Your task to perform on an android device: snooze an email in the gmail app Image 0: 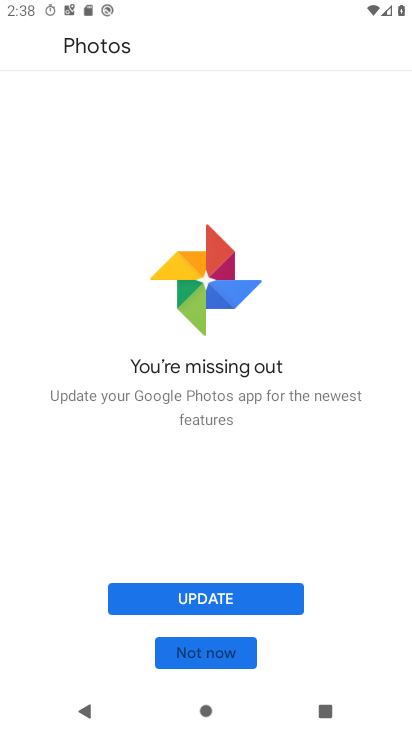
Step 0: press home button
Your task to perform on an android device: snooze an email in the gmail app Image 1: 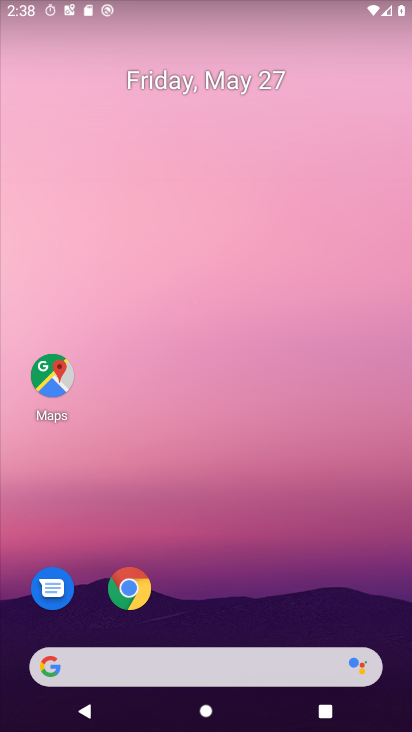
Step 1: drag from (266, 613) to (247, 1)
Your task to perform on an android device: snooze an email in the gmail app Image 2: 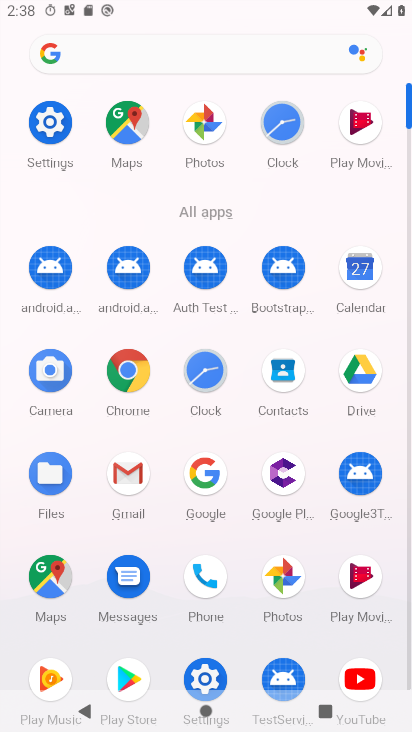
Step 2: click (116, 472)
Your task to perform on an android device: snooze an email in the gmail app Image 3: 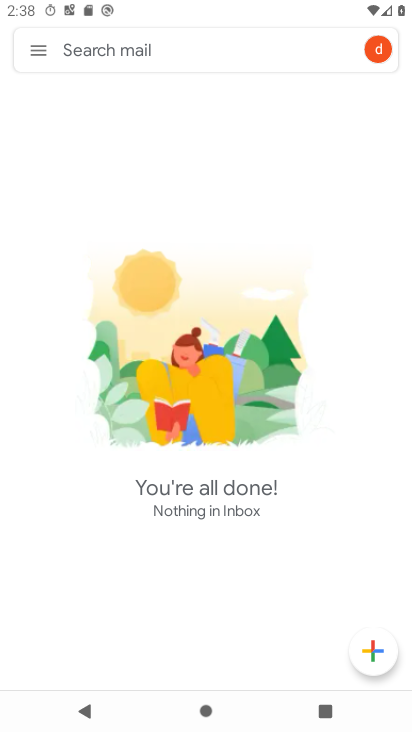
Step 3: click (29, 45)
Your task to perform on an android device: snooze an email in the gmail app Image 4: 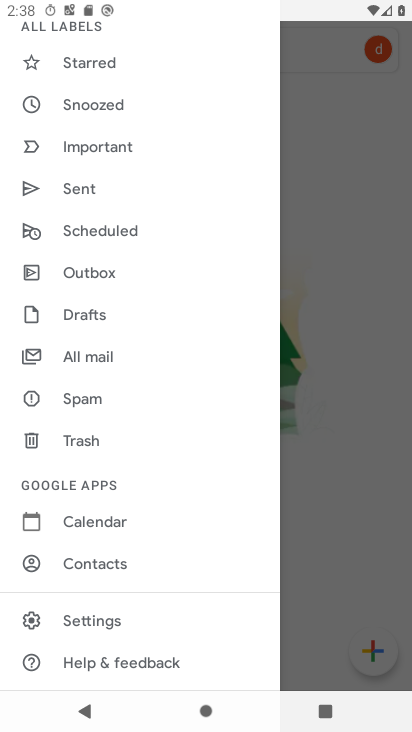
Step 4: click (88, 364)
Your task to perform on an android device: snooze an email in the gmail app Image 5: 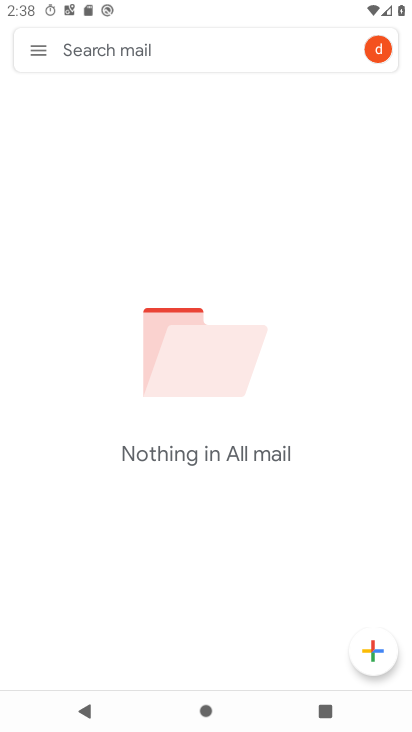
Step 5: task complete